Your task to perform on an android device: snooze an email in the gmail app Image 0: 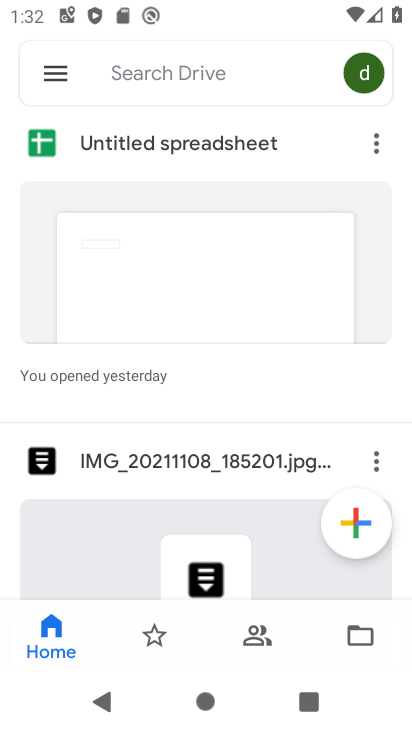
Step 0: press home button
Your task to perform on an android device: snooze an email in the gmail app Image 1: 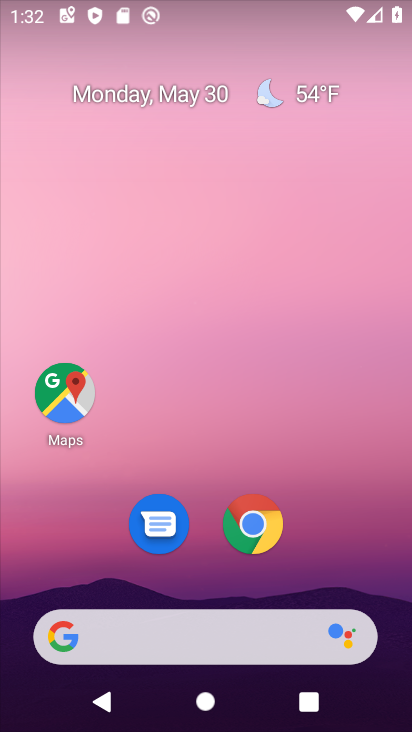
Step 1: drag from (191, 485) to (190, 0)
Your task to perform on an android device: snooze an email in the gmail app Image 2: 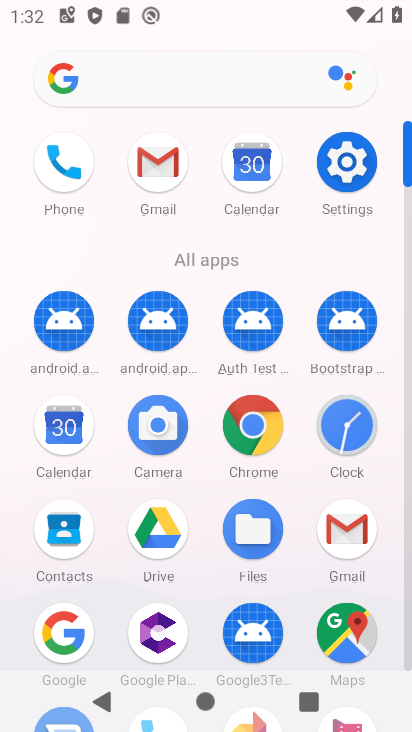
Step 2: click (162, 168)
Your task to perform on an android device: snooze an email in the gmail app Image 3: 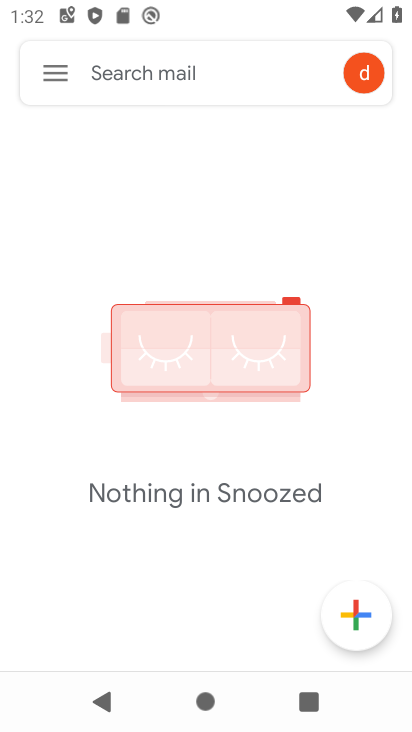
Step 3: click (61, 71)
Your task to perform on an android device: snooze an email in the gmail app Image 4: 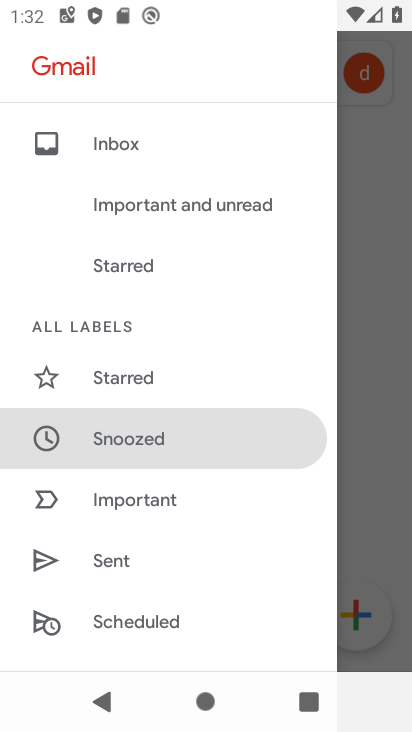
Step 4: drag from (208, 481) to (235, 97)
Your task to perform on an android device: snooze an email in the gmail app Image 5: 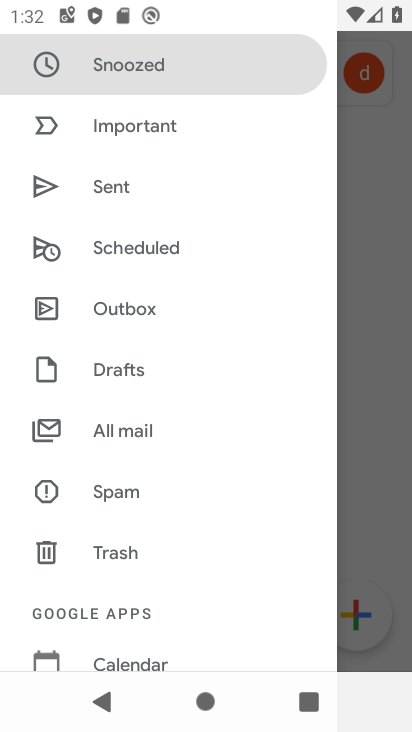
Step 5: click (139, 421)
Your task to perform on an android device: snooze an email in the gmail app Image 6: 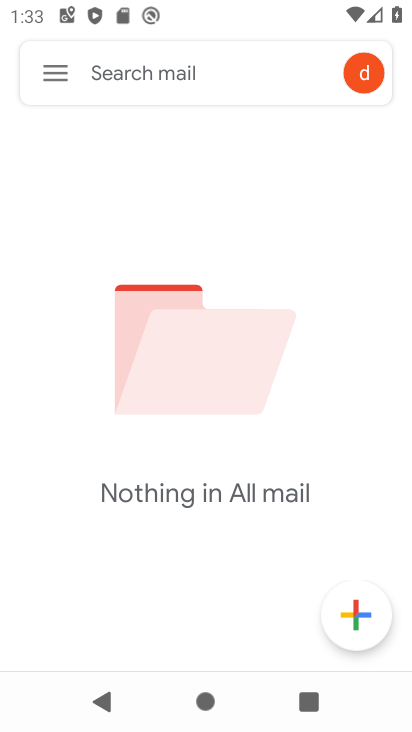
Step 6: task complete